Your task to perform on an android device: open device folders in google photos Image 0: 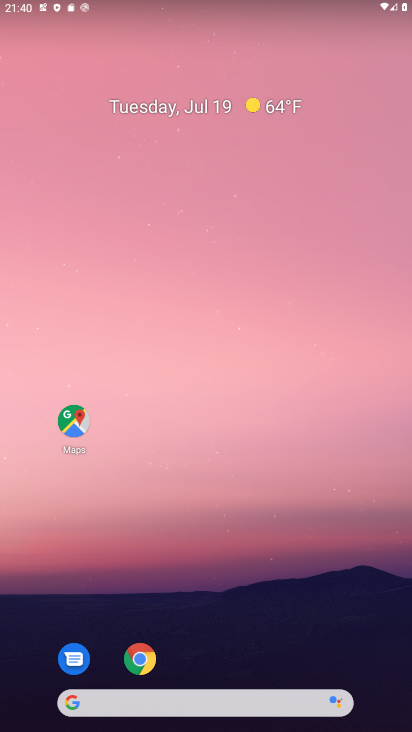
Step 0: drag from (197, 684) to (154, 12)
Your task to perform on an android device: open device folders in google photos Image 1: 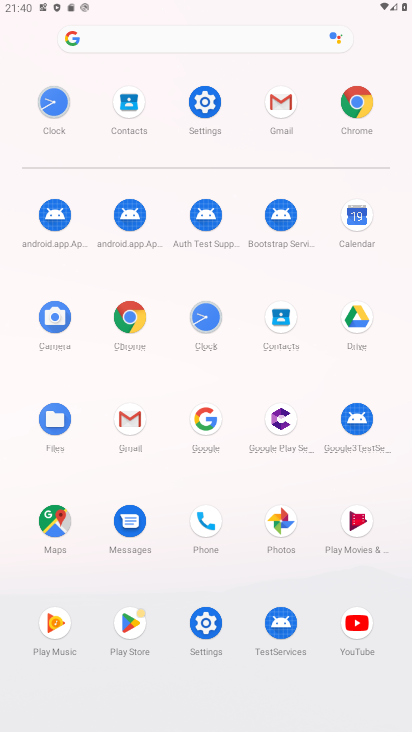
Step 1: click (286, 529)
Your task to perform on an android device: open device folders in google photos Image 2: 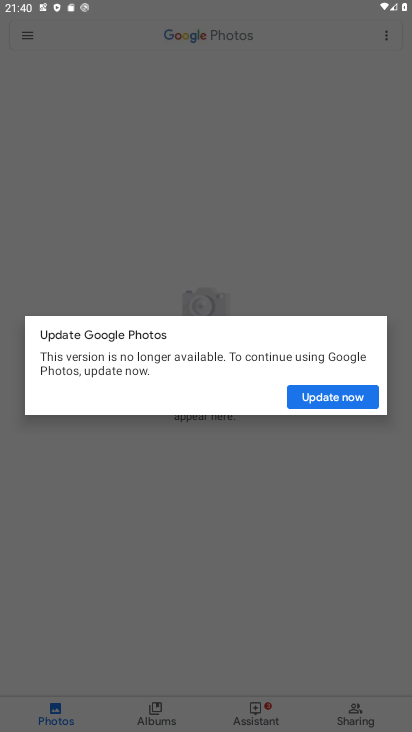
Step 2: click (321, 401)
Your task to perform on an android device: open device folders in google photos Image 3: 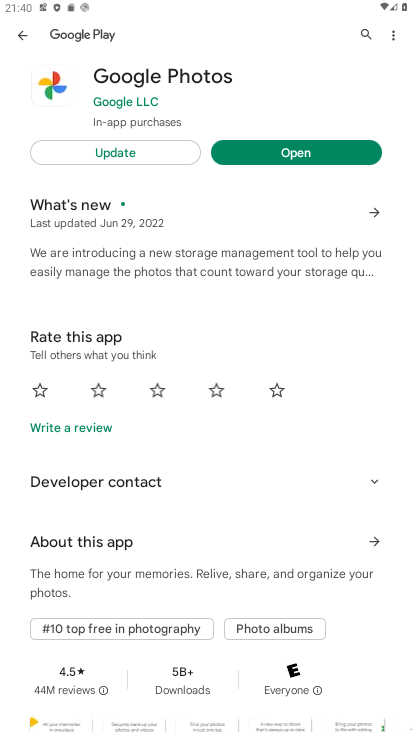
Step 3: click (275, 159)
Your task to perform on an android device: open device folders in google photos Image 4: 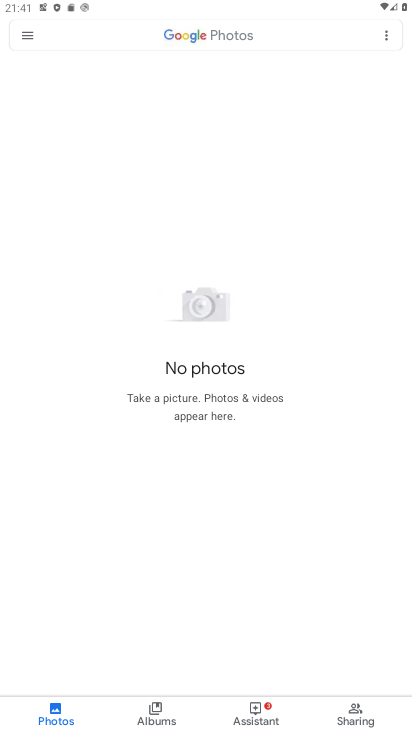
Step 4: click (23, 44)
Your task to perform on an android device: open device folders in google photos Image 5: 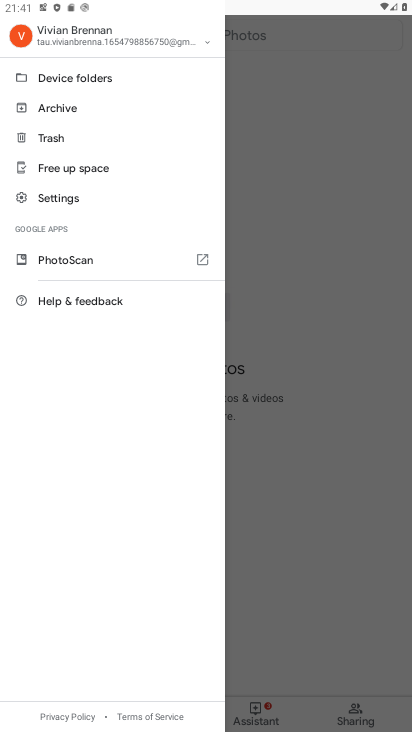
Step 5: click (85, 85)
Your task to perform on an android device: open device folders in google photos Image 6: 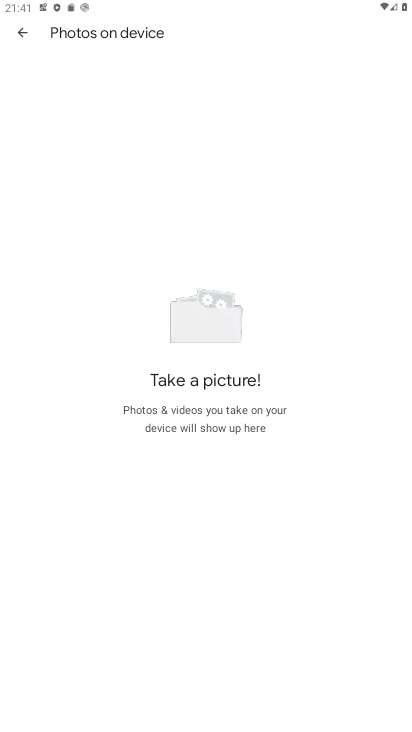
Step 6: task complete